Your task to perform on an android device: install app "Google Find My Device" Image 0: 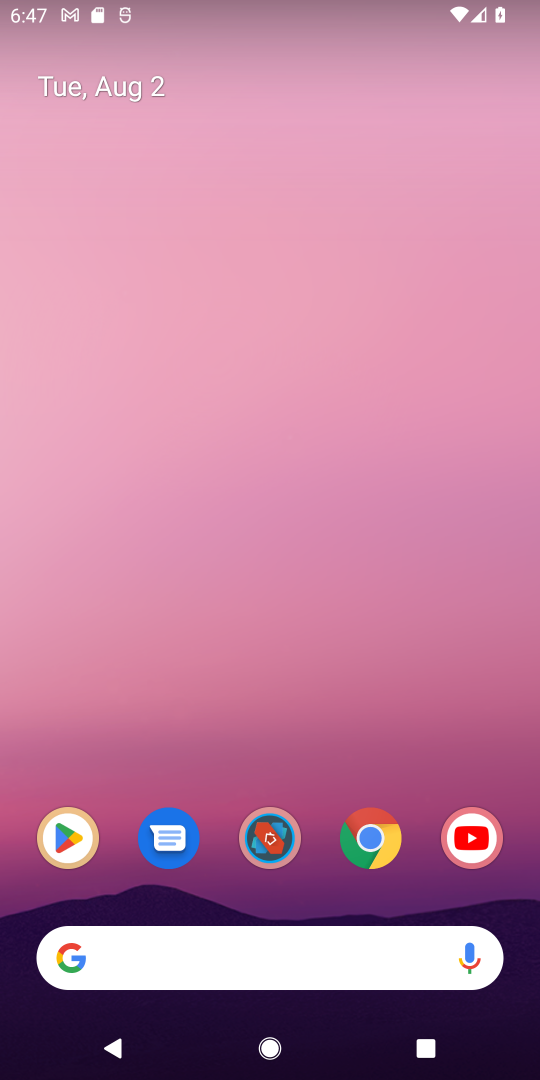
Step 0: click (52, 848)
Your task to perform on an android device: install app "Google Find My Device" Image 1: 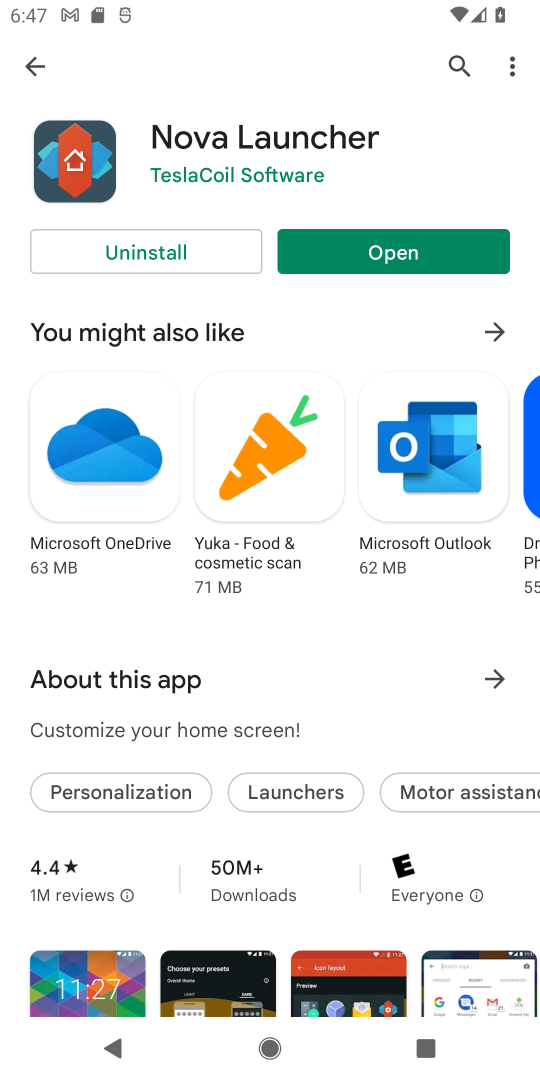
Step 1: click (462, 59)
Your task to perform on an android device: install app "Google Find My Device" Image 2: 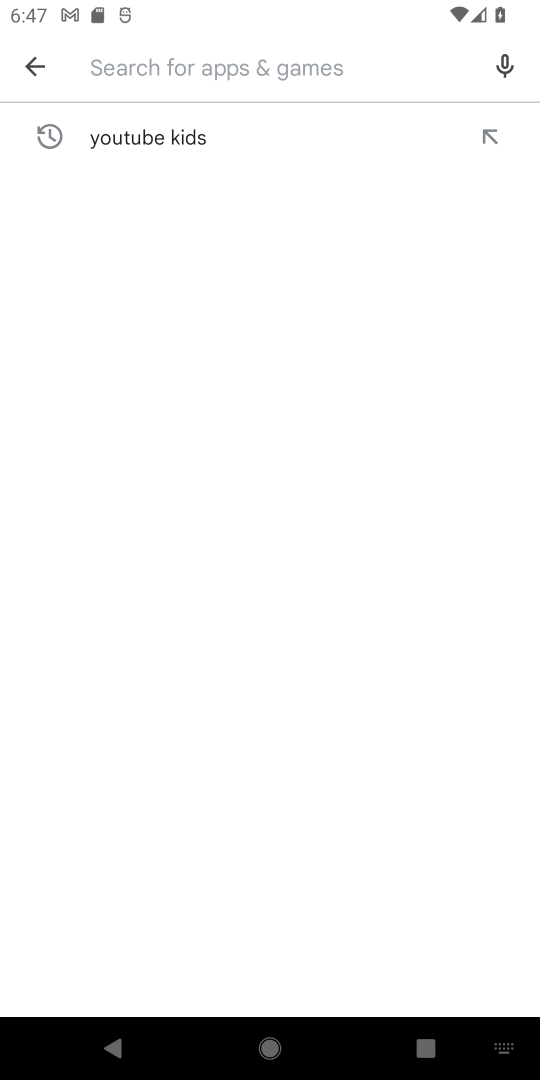
Step 2: type "google find my device"
Your task to perform on an android device: install app "Google Find My Device" Image 3: 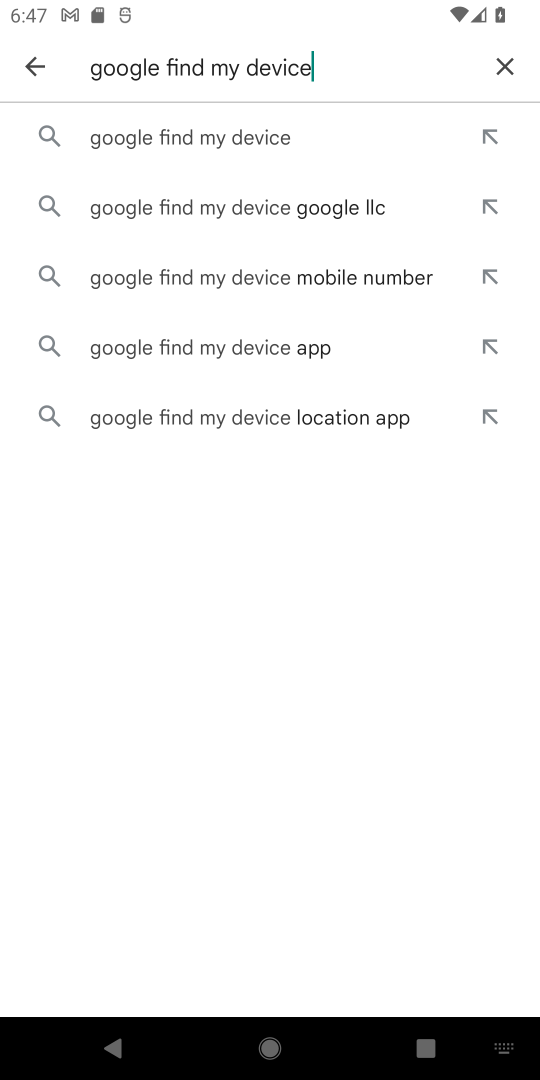
Step 3: click (275, 113)
Your task to perform on an android device: install app "Google Find My Device" Image 4: 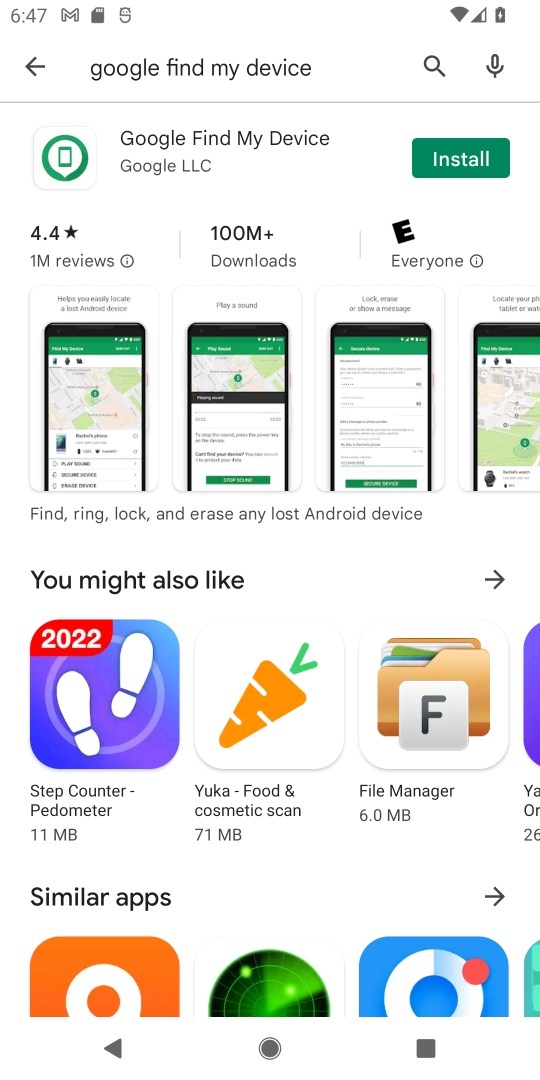
Step 4: click (213, 148)
Your task to perform on an android device: install app "Google Find My Device" Image 5: 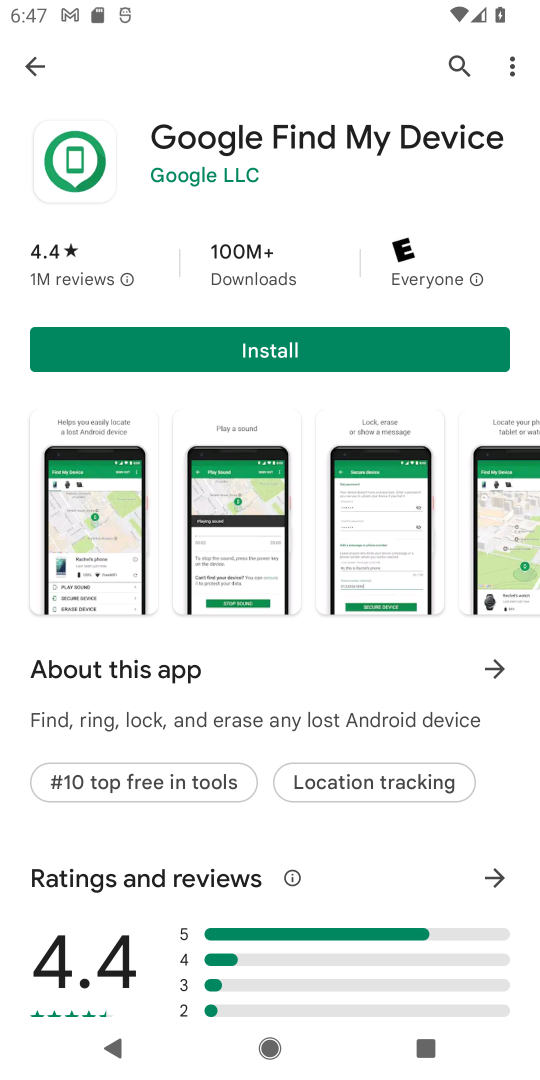
Step 5: click (264, 336)
Your task to perform on an android device: install app "Google Find My Device" Image 6: 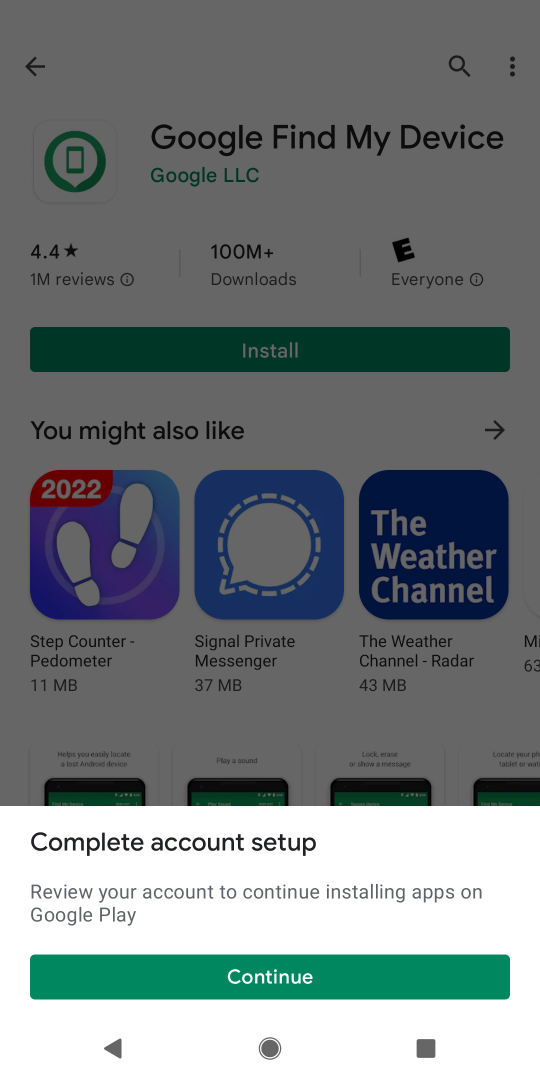
Step 6: click (277, 965)
Your task to perform on an android device: install app "Google Find My Device" Image 7: 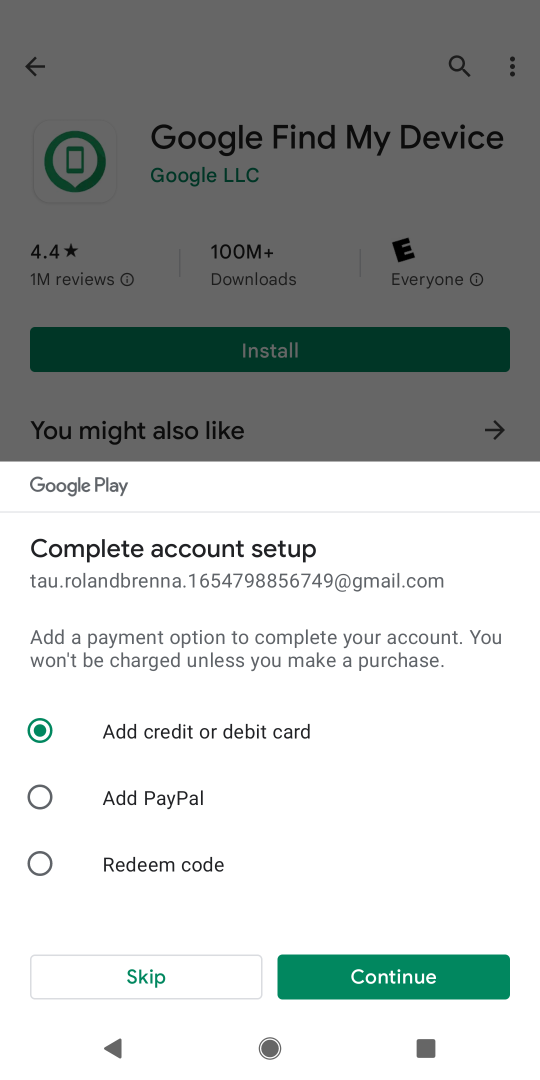
Step 7: click (121, 974)
Your task to perform on an android device: install app "Google Find My Device" Image 8: 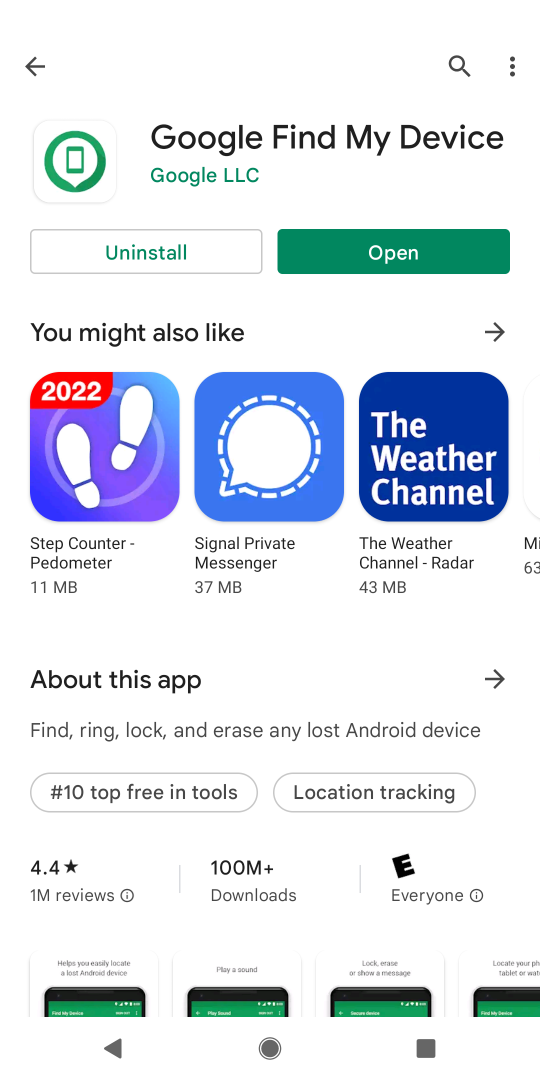
Step 8: task complete